Your task to perform on an android device: Turn on the flashlight Image 0: 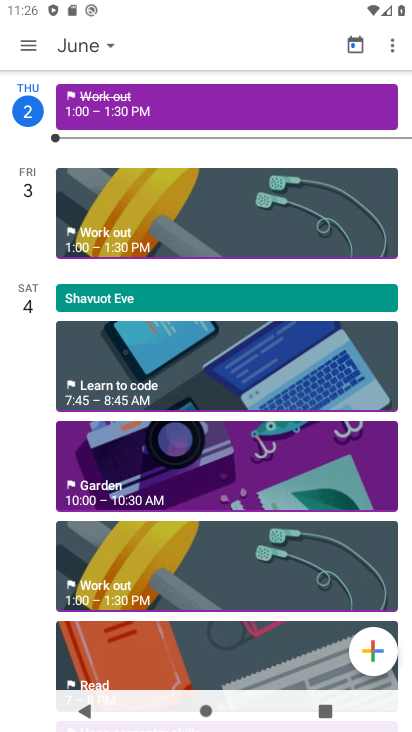
Step 0: task impossible